Your task to perform on an android device: Find coffee shops on Maps Image 0: 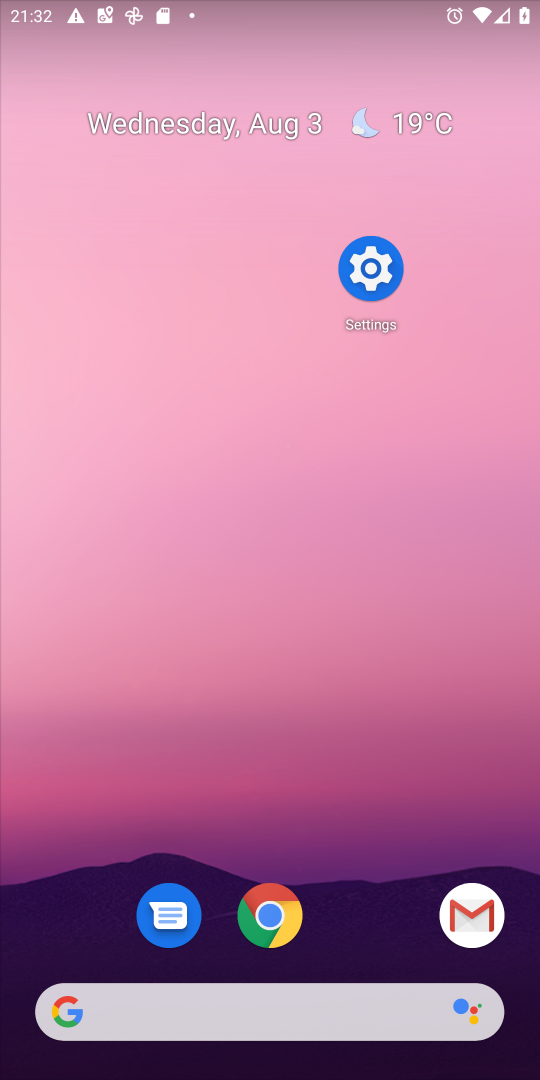
Step 0: drag from (307, 1047) to (219, 499)
Your task to perform on an android device: Find coffee shops on Maps Image 1: 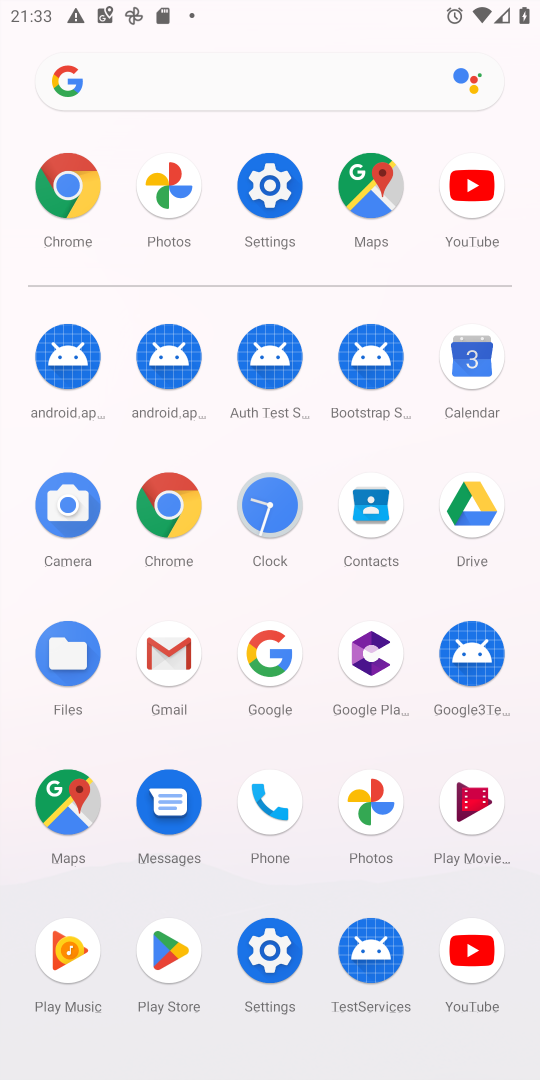
Step 1: click (355, 205)
Your task to perform on an android device: Find coffee shops on Maps Image 2: 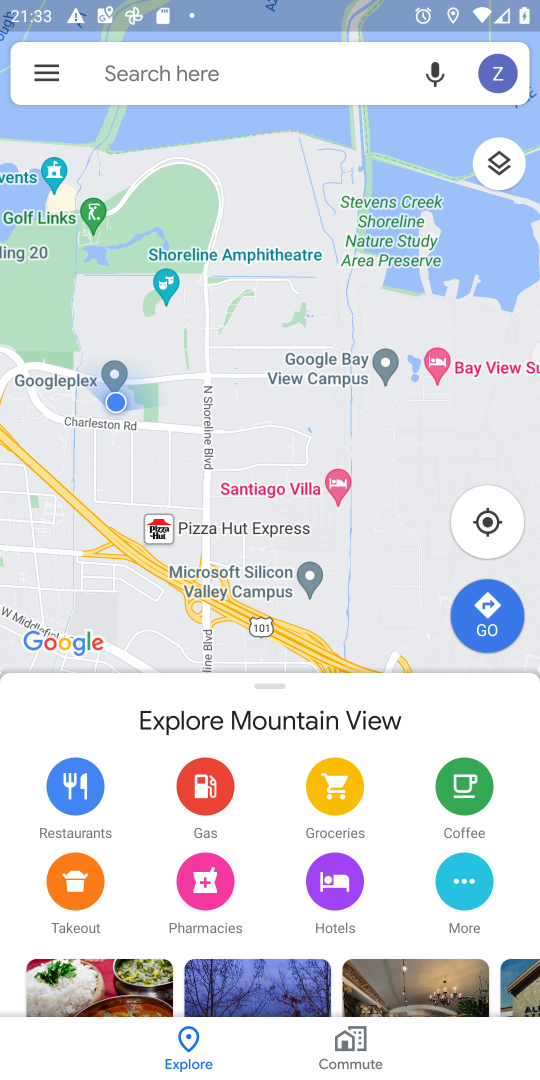
Step 2: click (261, 61)
Your task to perform on an android device: Find coffee shops on Maps Image 3: 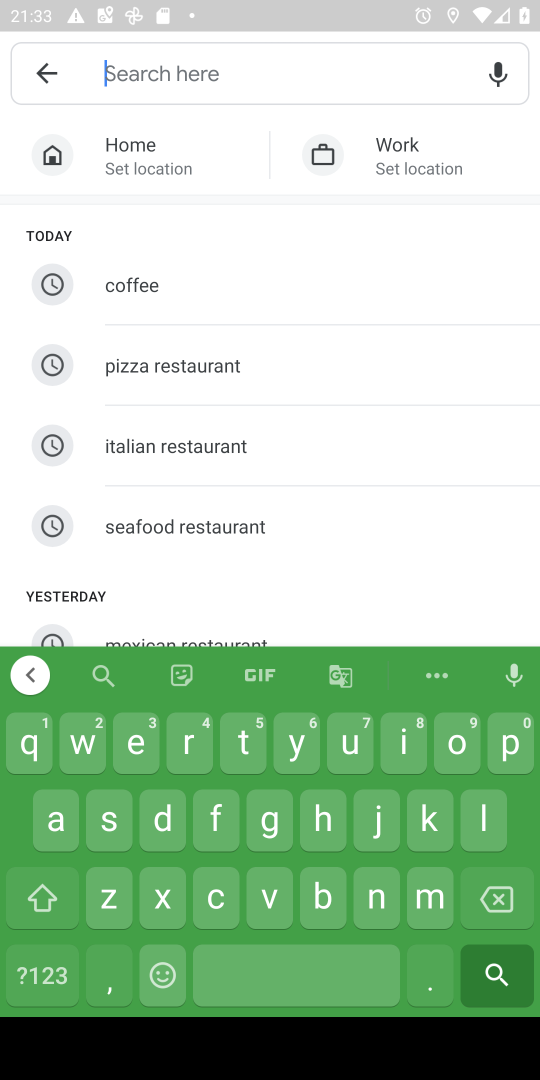
Step 3: click (139, 290)
Your task to perform on an android device: Find coffee shops on Maps Image 4: 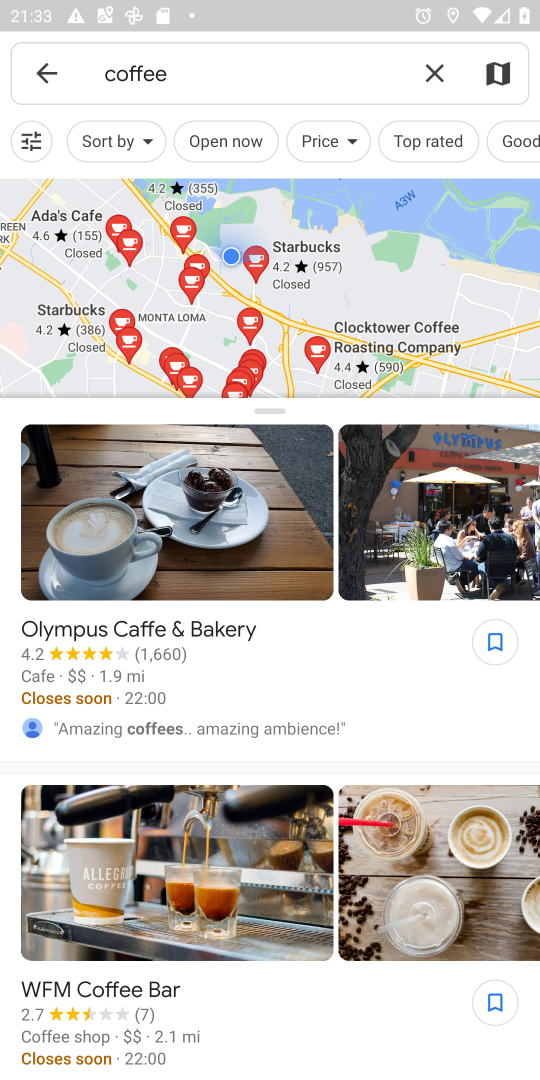
Step 4: task complete